Your task to perform on an android device: Search for sushi restaurants on Maps Image 0: 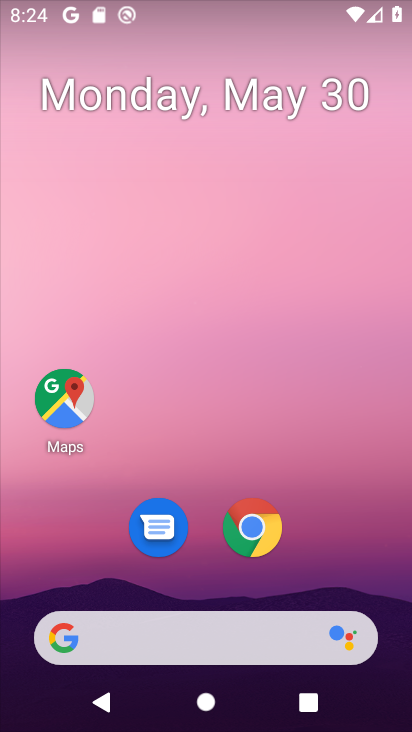
Step 0: click (68, 391)
Your task to perform on an android device: Search for sushi restaurants on Maps Image 1: 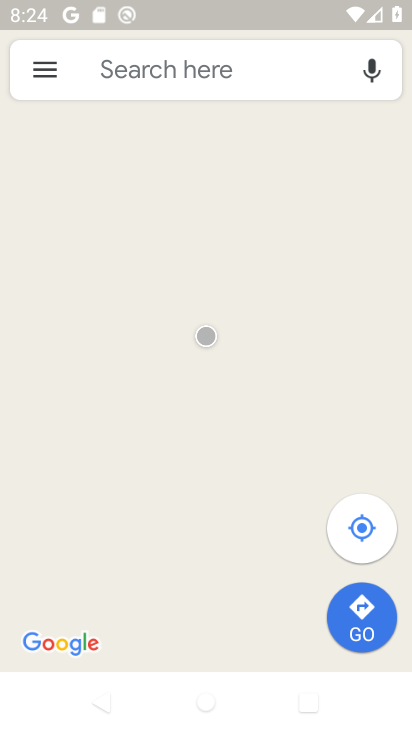
Step 1: click (219, 73)
Your task to perform on an android device: Search for sushi restaurants on Maps Image 2: 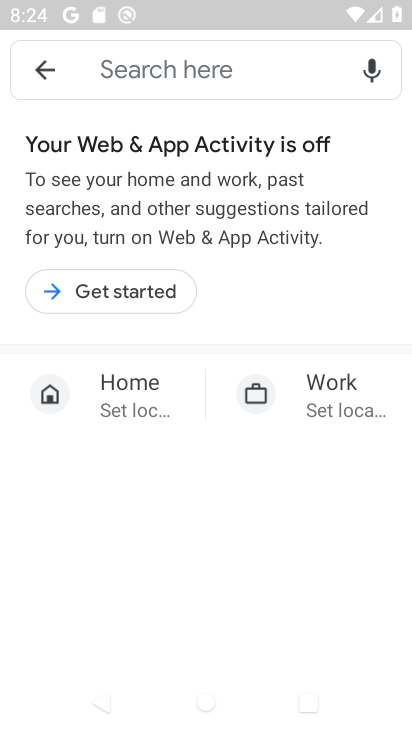
Step 2: click (207, 73)
Your task to perform on an android device: Search for sushi restaurants on Maps Image 3: 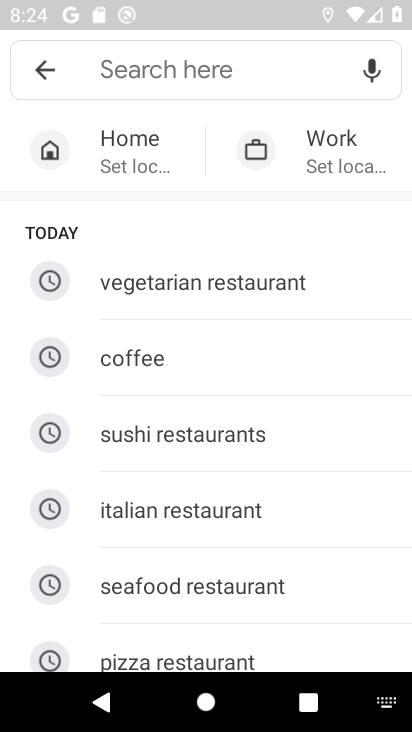
Step 3: drag from (191, 608) to (213, 438)
Your task to perform on an android device: Search for sushi restaurants on Maps Image 4: 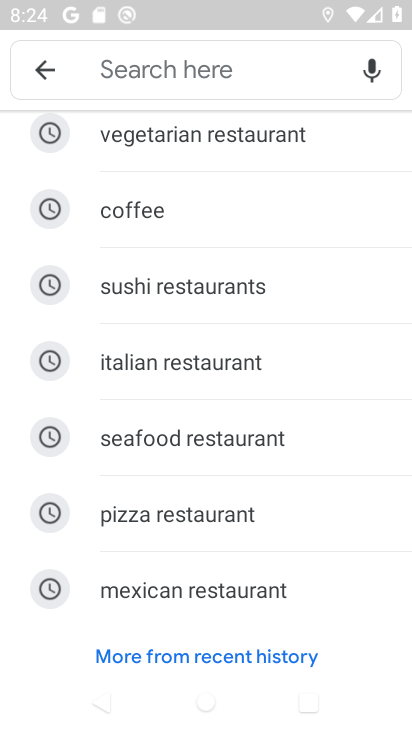
Step 4: click (195, 287)
Your task to perform on an android device: Search for sushi restaurants on Maps Image 5: 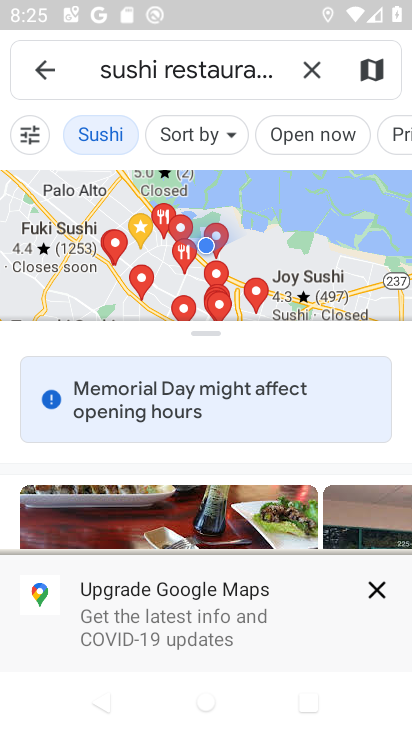
Step 5: task complete